Your task to perform on an android device: Show me the alarms in the clock app Image 0: 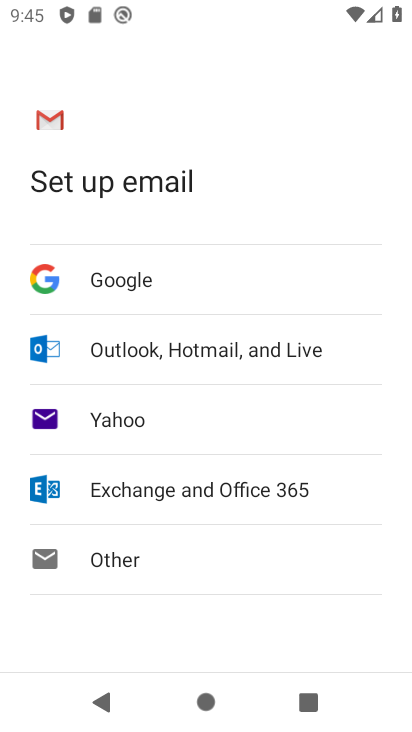
Step 0: press home button
Your task to perform on an android device: Show me the alarms in the clock app Image 1: 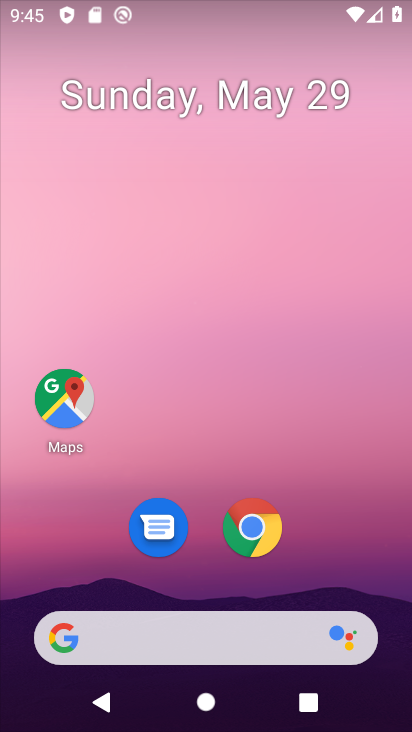
Step 1: drag from (343, 503) to (329, 151)
Your task to perform on an android device: Show me the alarms in the clock app Image 2: 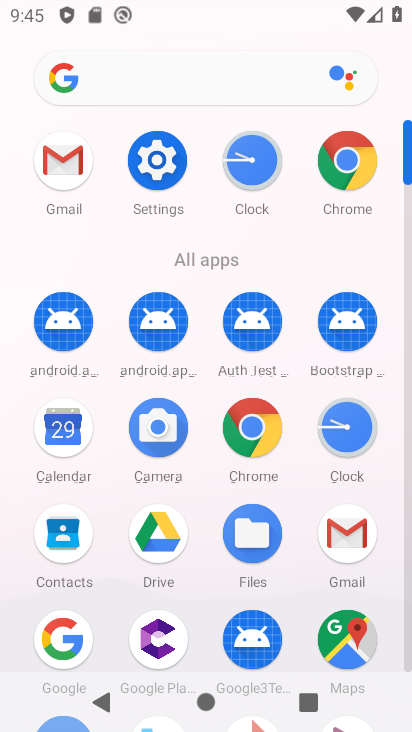
Step 2: click (251, 164)
Your task to perform on an android device: Show me the alarms in the clock app Image 3: 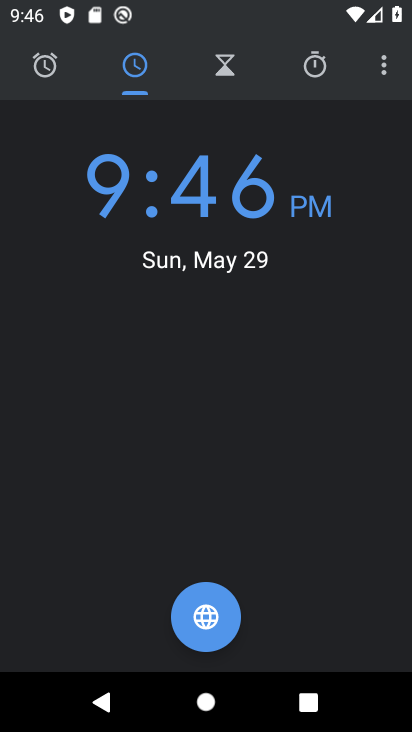
Step 3: click (51, 78)
Your task to perform on an android device: Show me the alarms in the clock app Image 4: 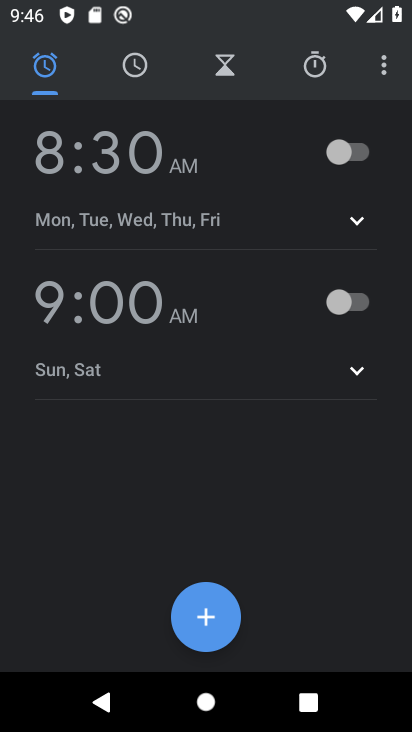
Step 4: task complete